Your task to perform on an android device: set the timer Image 0: 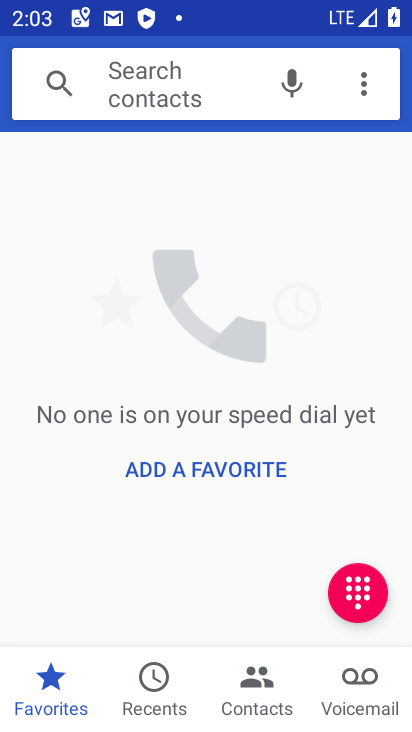
Step 0: press home button
Your task to perform on an android device: set the timer Image 1: 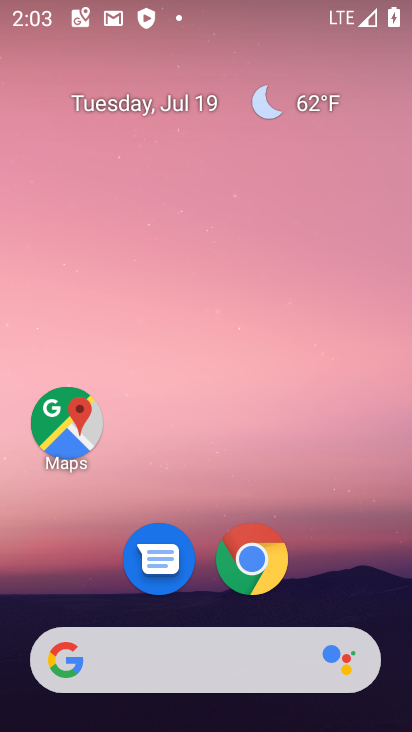
Step 1: drag from (206, 631) to (388, 456)
Your task to perform on an android device: set the timer Image 2: 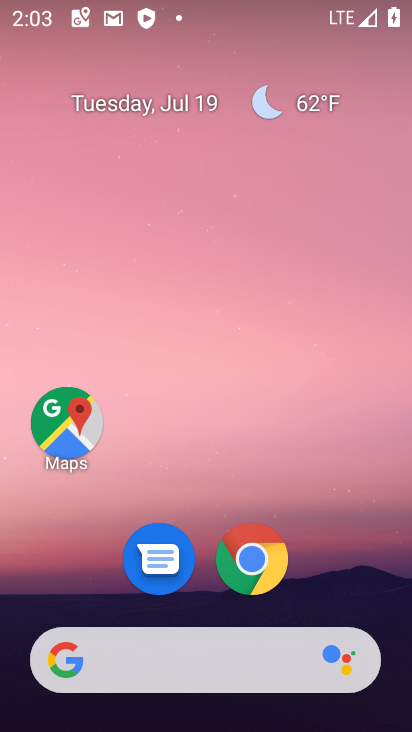
Step 2: drag from (205, 697) to (335, 119)
Your task to perform on an android device: set the timer Image 3: 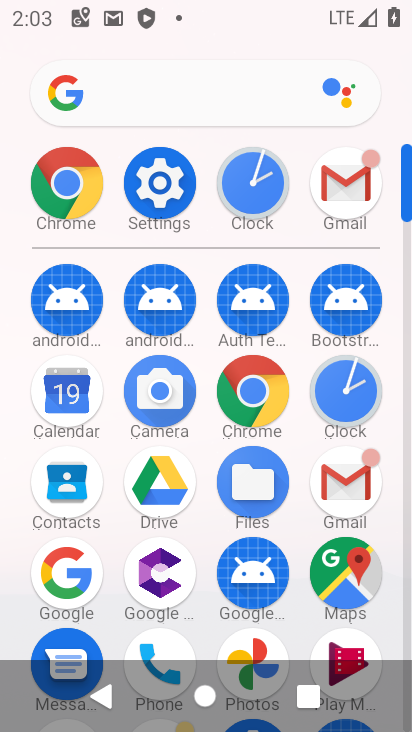
Step 3: click (350, 387)
Your task to perform on an android device: set the timer Image 4: 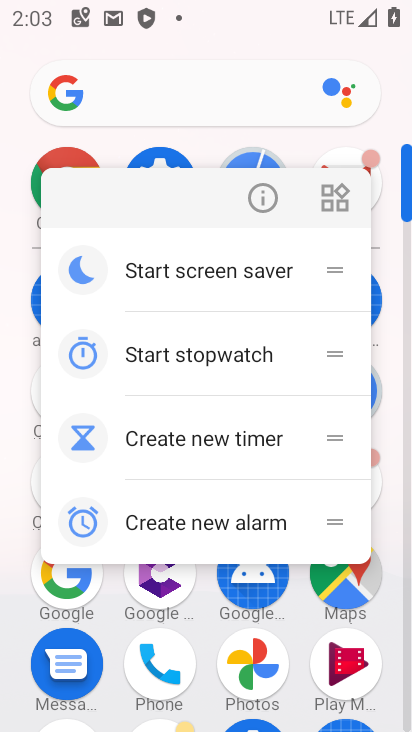
Step 4: click (14, 143)
Your task to perform on an android device: set the timer Image 5: 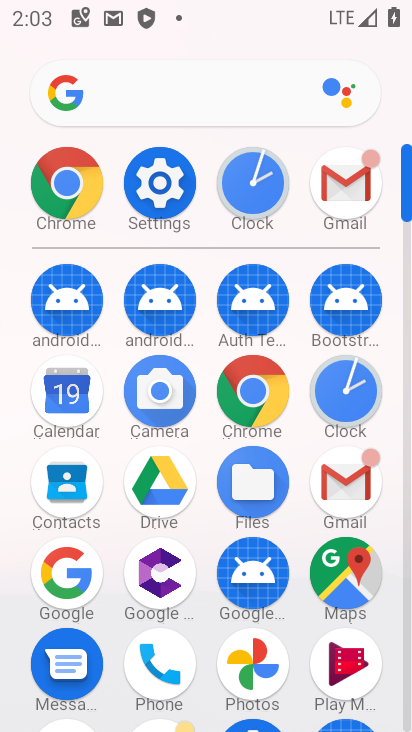
Step 5: click (270, 187)
Your task to perform on an android device: set the timer Image 6: 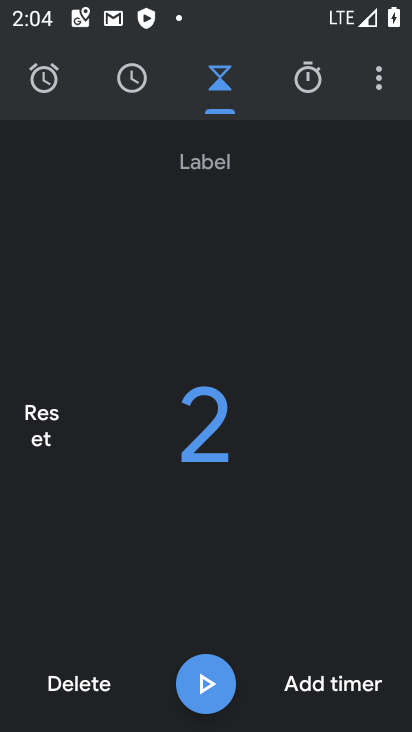
Step 6: click (210, 705)
Your task to perform on an android device: set the timer Image 7: 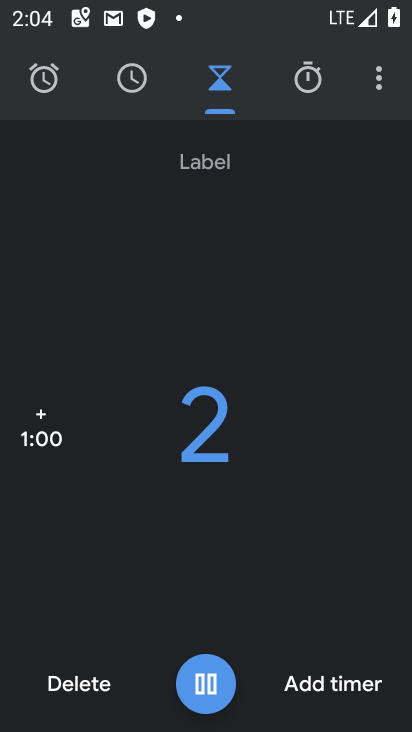
Step 7: task complete